Your task to perform on an android device: Open Amazon Image 0: 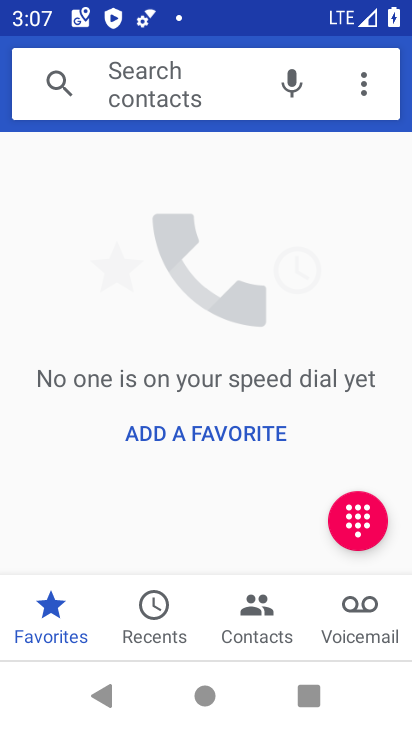
Step 0: press back button
Your task to perform on an android device: Open Amazon Image 1: 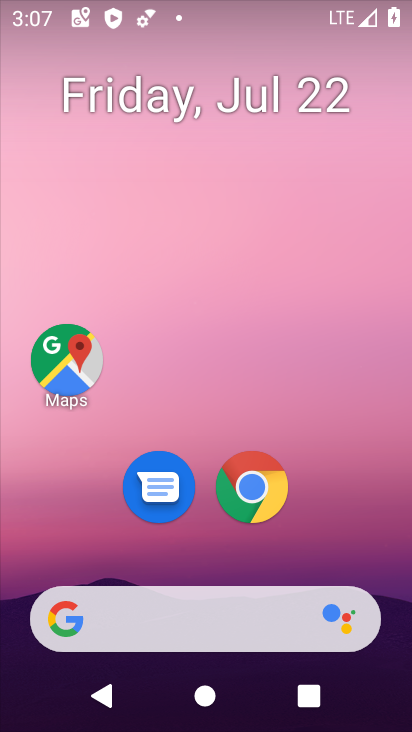
Step 1: click (265, 479)
Your task to perform on an android device: Open Amazon Image 2: 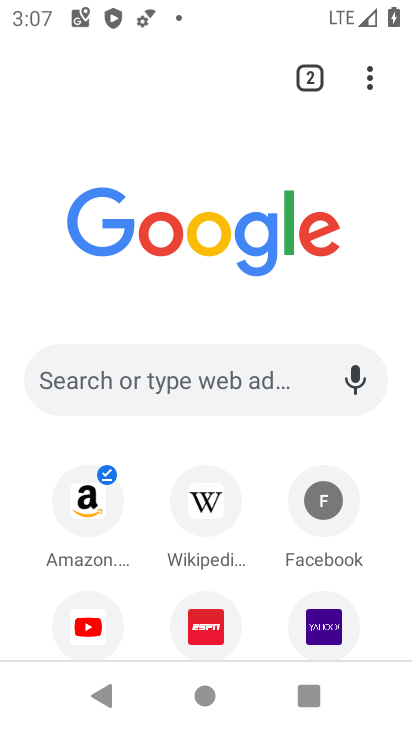
Step 2: click (82, 519)
Your task to perform on an android device: Open Amazon Image 3: 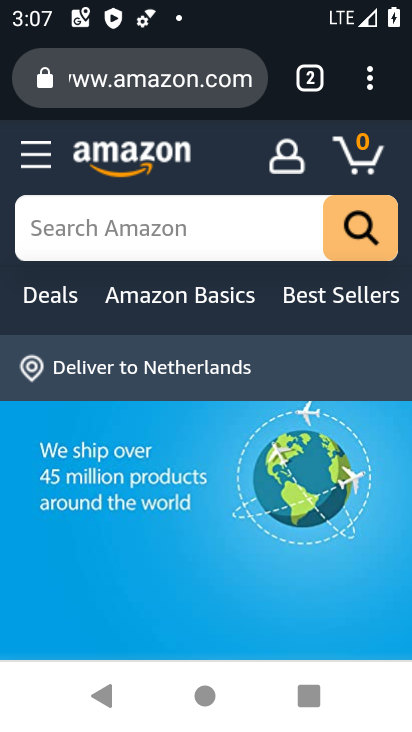
Step 3: task complete